Your task to perform on an android device: delete location history Image 0: 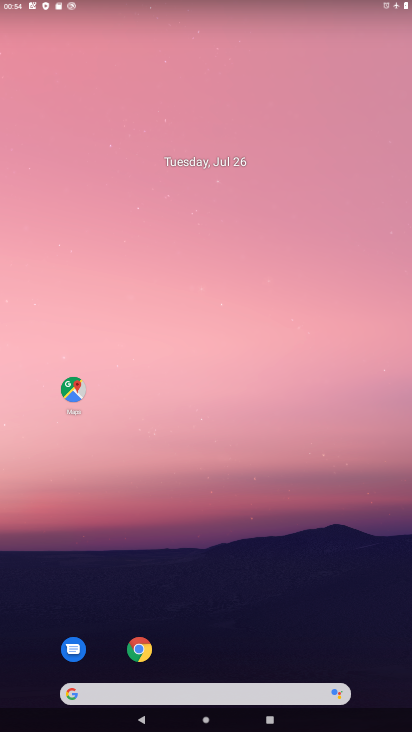
Step 0: drag from (222, 723) to (213, 38)
Your task to perform on an android device: delete location history Image 1: 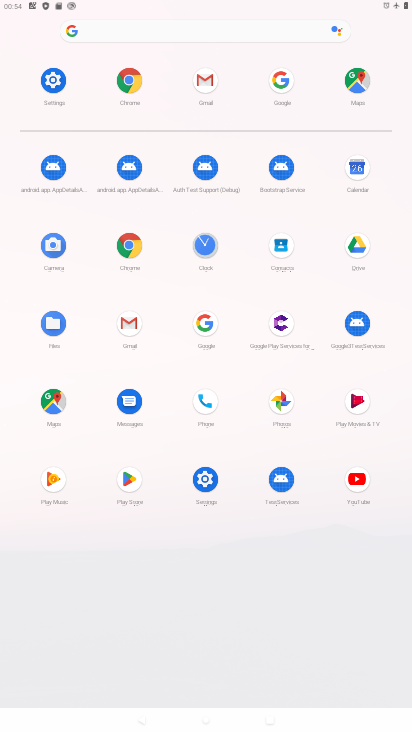
Step 1: click (48, 400)
Your task to perform on an android device: delete location history Image 2: 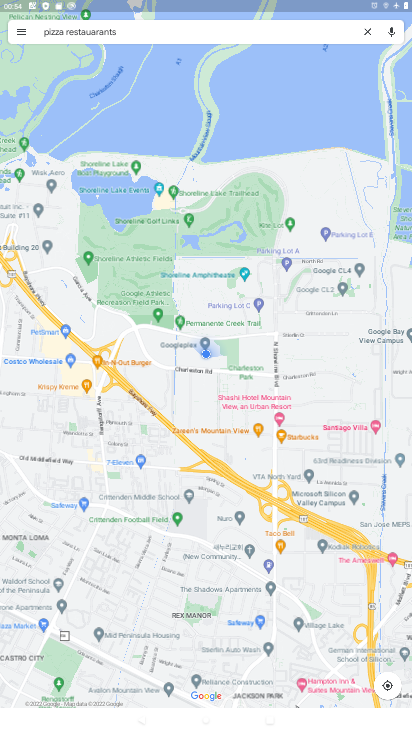
Step 2: click (21, 33)
Your task to perform on an android device: delete location history Image 3: 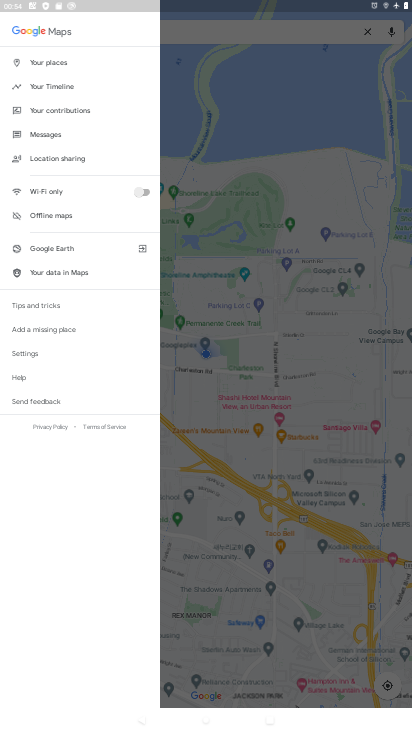
Step 3: click (46, 81)
Your task to perform on an android device: delete location history Image 4: 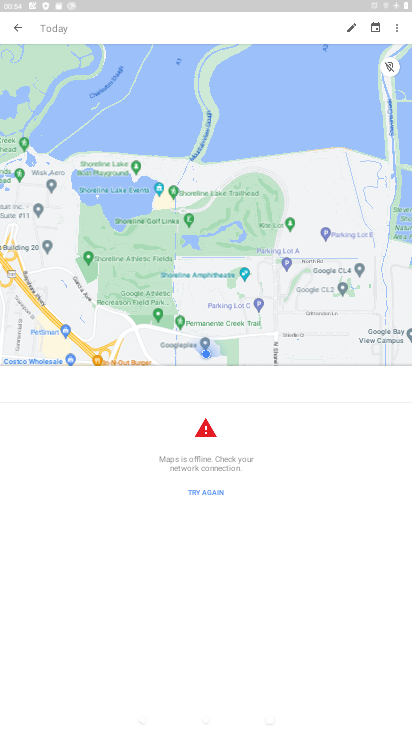
Step 4: click (396, 28)
Your task to perform on an android device: delete location history Image 5: 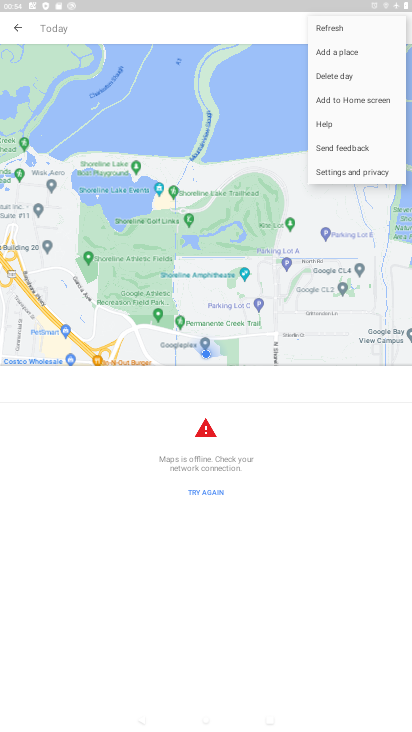
Step 5: click (335, 174)
Your task to perform on an android device: delete location history Image 6: 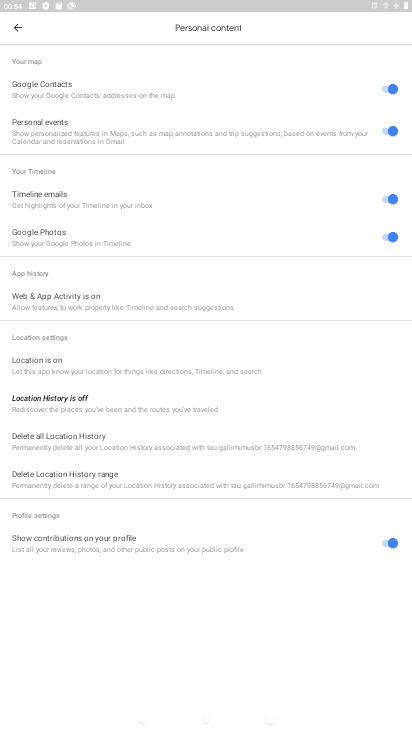
Step 6: click (82, 441)
Your task to perform on an android device: delete location history Image 7: 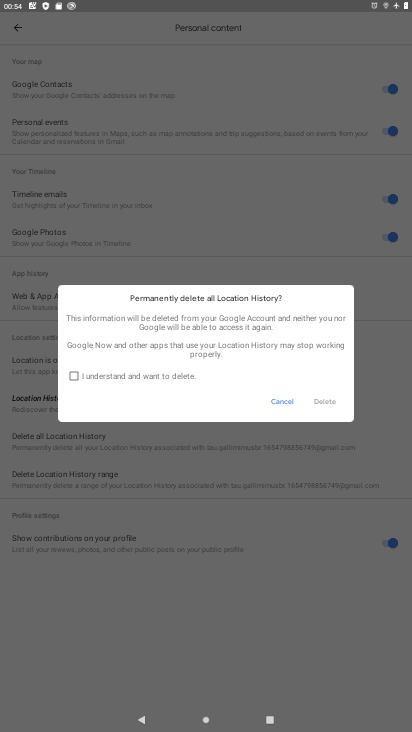
Step 7: click (74, 374)
Your task to perform on an android device: delete location history Image 8: 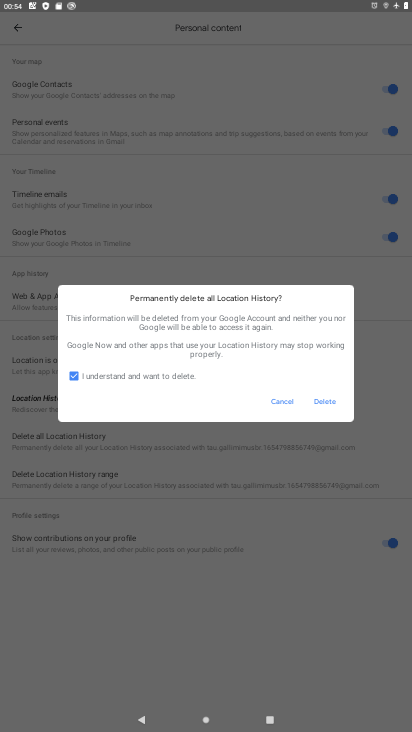
Step 8: click (329, 401)
Your task to perform on an android device: delete location history Image 9: 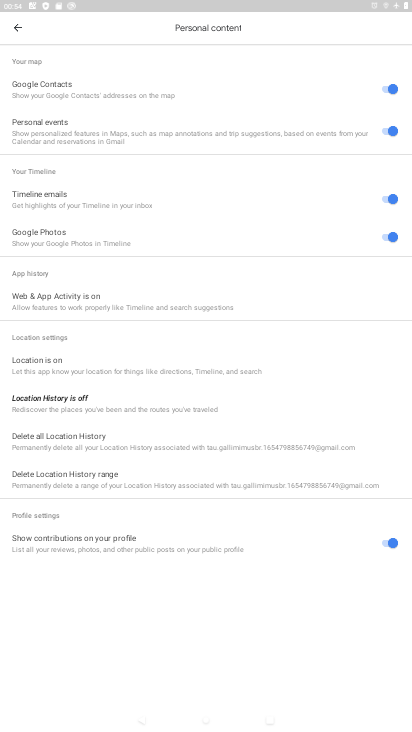
Step 9: task complete